Your task to perform on an android device: Show me productivity apps on the Play Store Image 0: 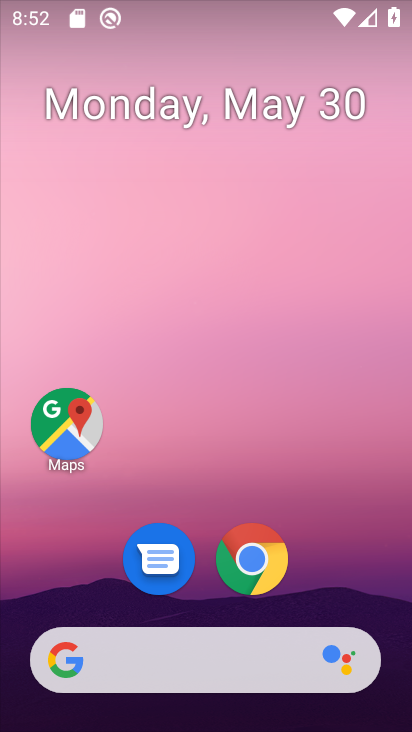
Step 0: drag from (329, 568) to (212, 106)
Your task to perform on an android device: Show me productivity apps on the Play Store Image 1: 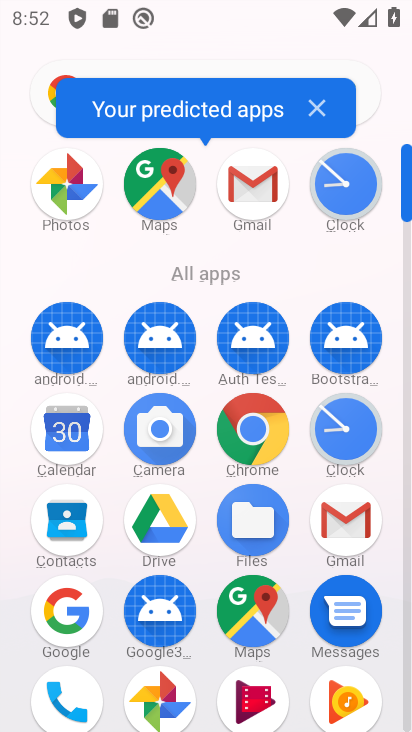
Step 1: drag from (295, 550) to (309, 250)
Your task to perform on an android device: Show me productivity apps on the Play Store Image 2: 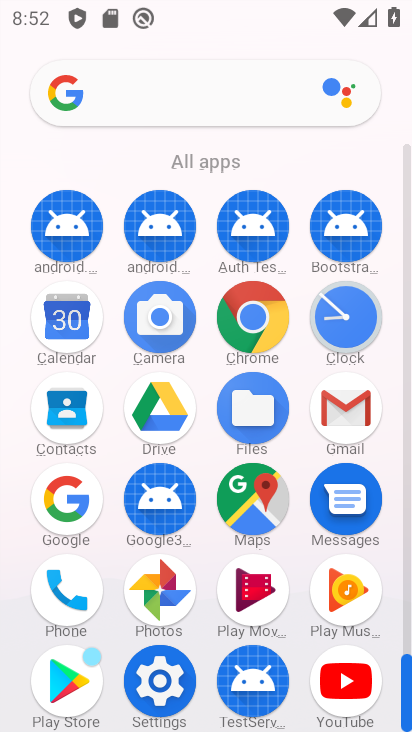
Step 2: click (261, 586)
Your task to perform on an android device: Show me productivity apps on the Play Store Image 3: 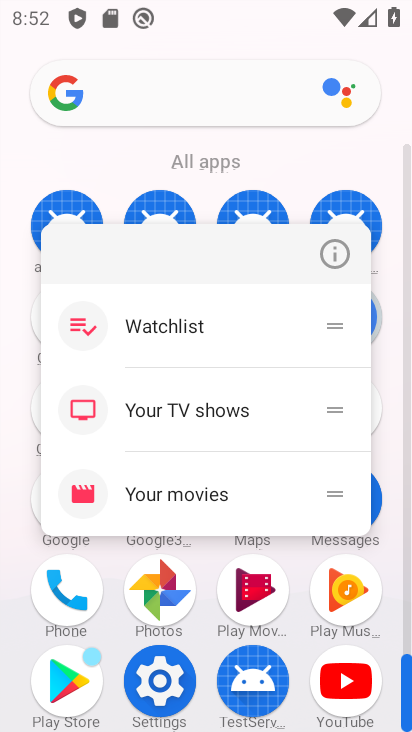
Step 3: click (62, 686)
Your task to perform on an android device: Show me productivity apps on the Play Store Image 4: 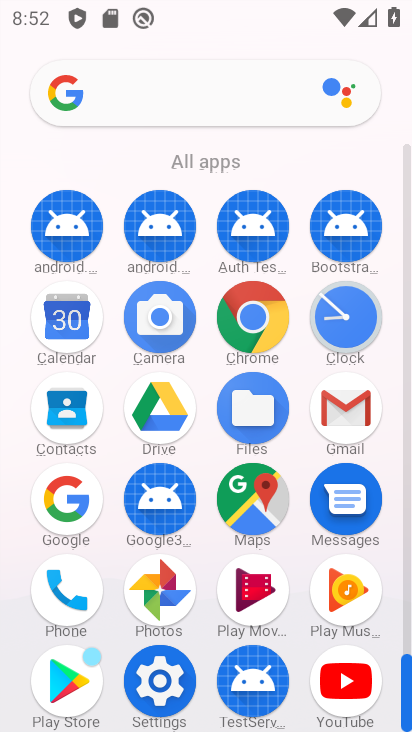
Step 4: click (58, 687)
Your task to perform on an android device: Show me productivity apps on the Play Store Image 5: 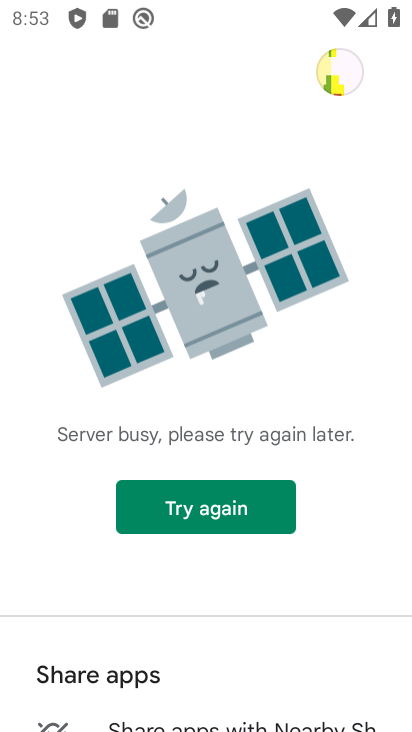
Step 5: click (225, 530)
Your task to perform on an android device: Show me productivity apps on the Play Store Image 6: 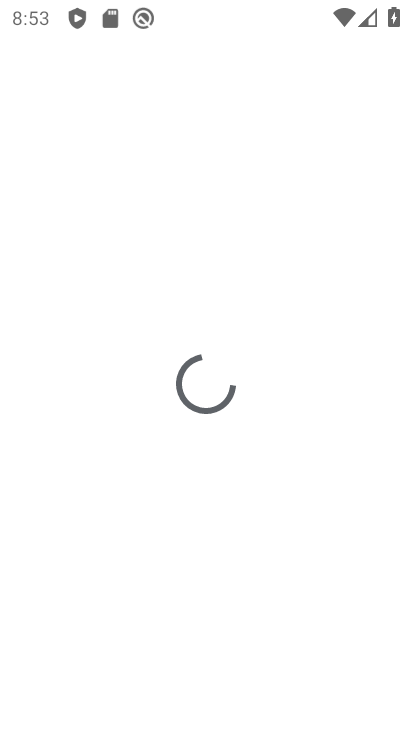
Step 6: click (229, 504)
Your task to perform on an android device: Show me productivity apps on the Play Store Image 7: 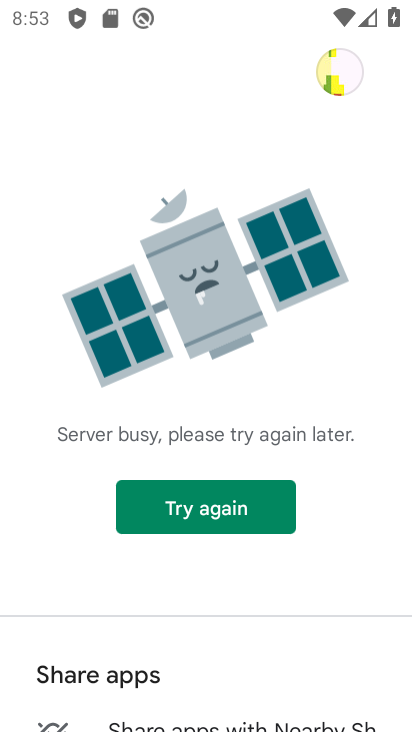
Step 7: task complete